Your task to perform on an android device: add a contact in the contacts app Image 0: 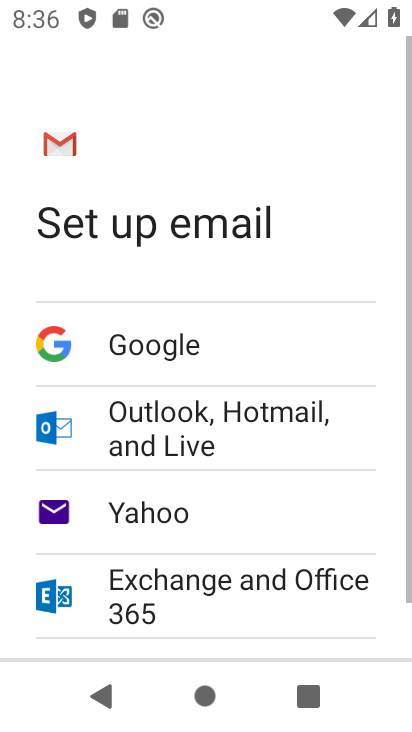
Step 0: press back button
Your task to perform on an android device: add a contact in the contacts app Image 1: 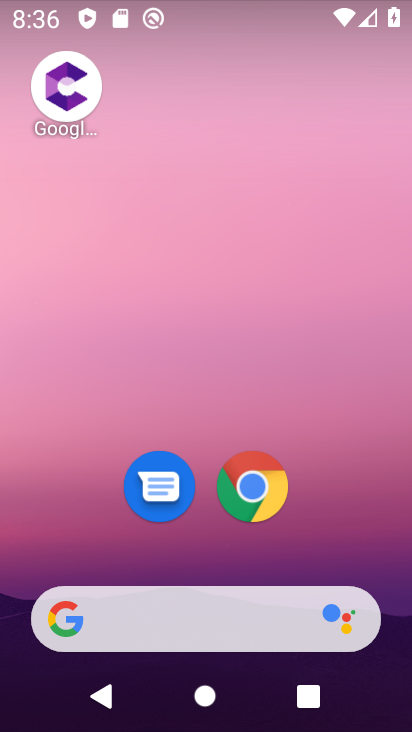
Step 1: drag from (76, 516) to (88, 82)
Your task to perform on an android device: add a contact in the contacts app Image 2: 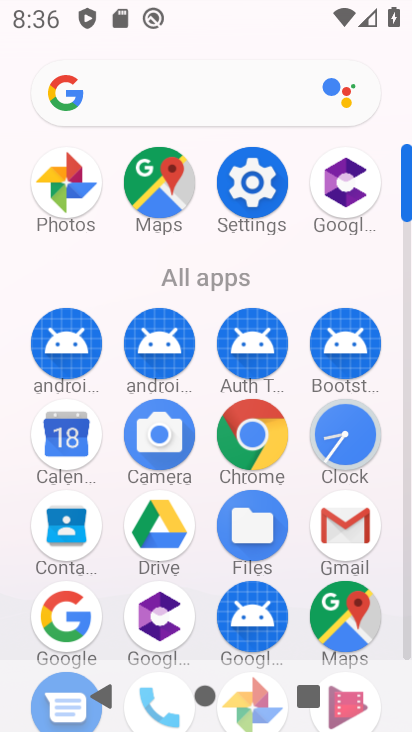
Step 2: click (65, 534)
Your task to perform on an android device: add a contact in the contacts app Image 3: 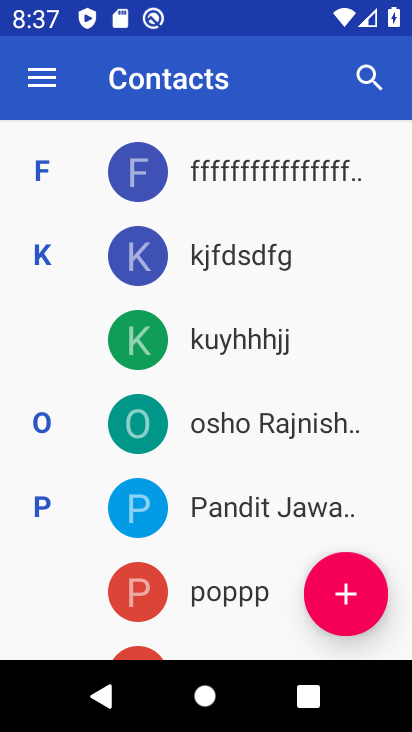
Step 3: click (343, 596)
Your task to perform on an android device: add a contact in the contacts app Image 4: 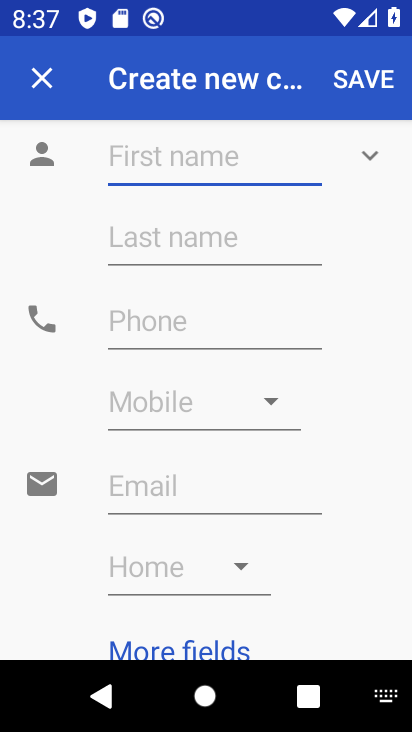
Step 4: click (206, 153)
Your task to perform on an android device: add a contact in the contacts app Image 5: 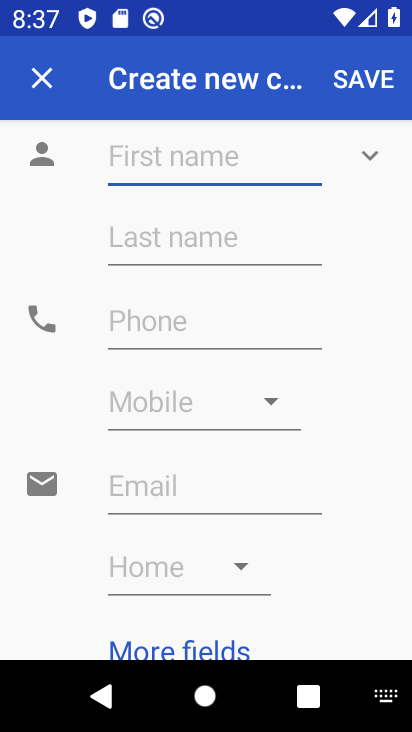
Step 5: type "gbgb"
Your task to perform on an android device: add a contact in the contacts app Image 6: 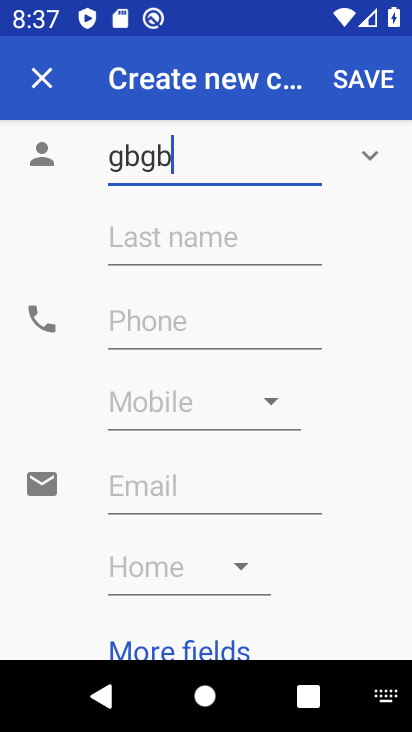
Step 6: click (153, 320)
Your task to perform on an android device: add a contact in the contacts app Image 7: 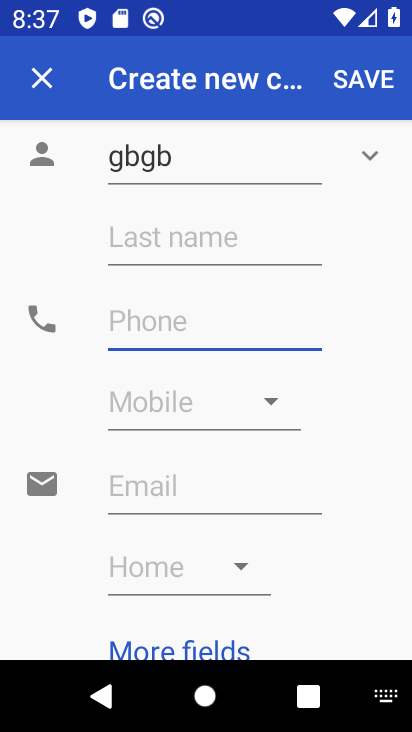
Step 7: type "5665"
Your task to perform on an android device: add a contact in the contacts app Image 8: 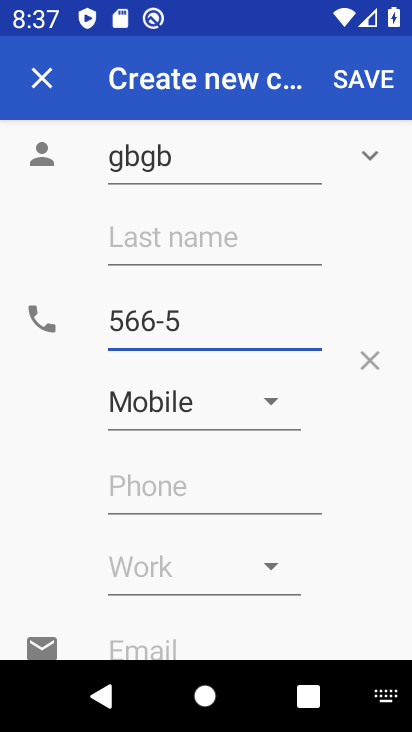
Step 8: click (385, 72)
Your task to perform on an android device: add a contact in the contacts app Image 9: 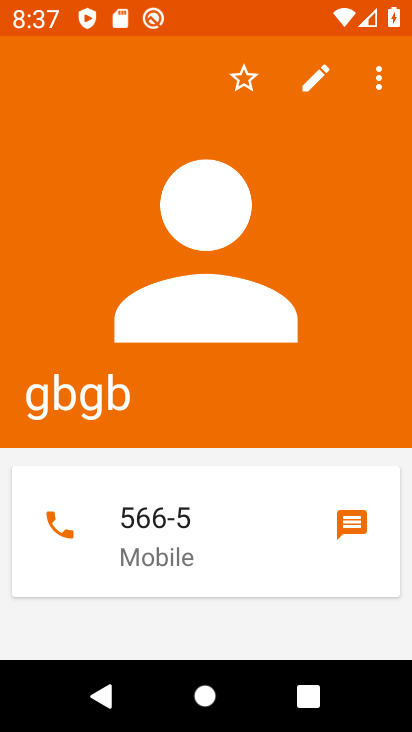
Step 9: task complete